Your task to perform on an android device: check google app version Image 0: 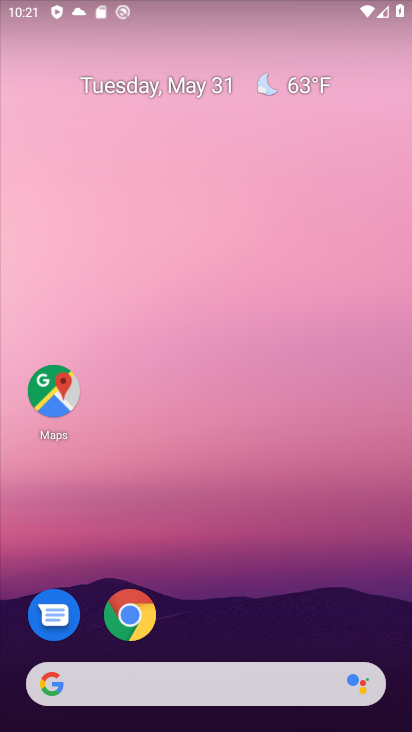
Step 0: drag from (358, 536) to (301, 152)
Your task to perform on an android device: check google app version Image 1: 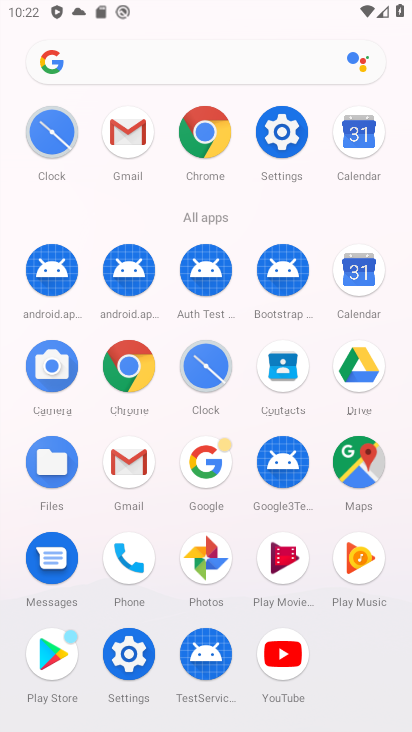
Step 1: click (207, 477)
Your task to perform on an android device: check google app version Image 2: 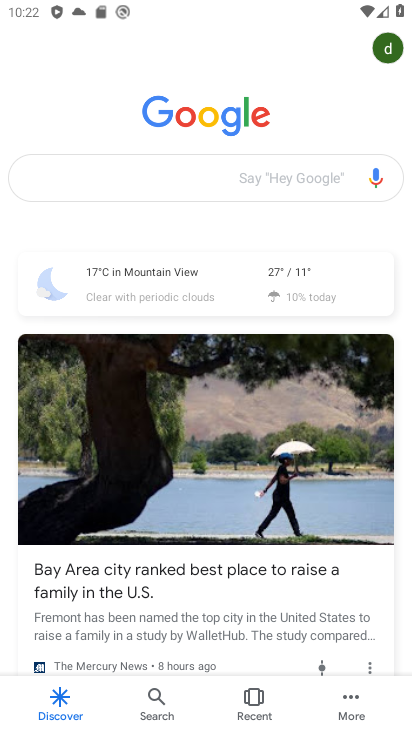
Step 2: click (355, 701)
Your task to perform on an android device: check google app version Image 3: 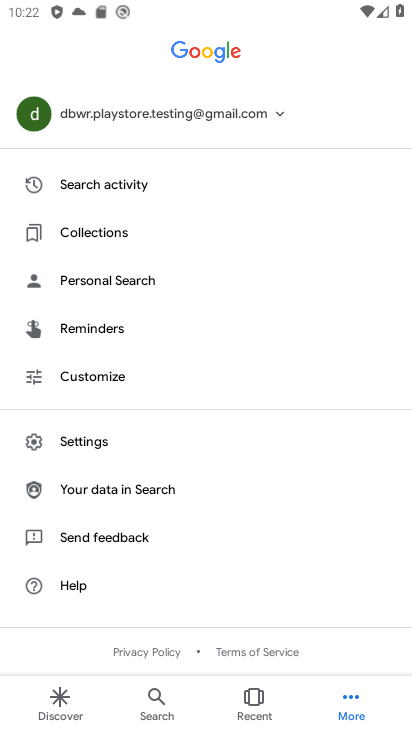
Step 3: click (135, 441)
Your task to perform on an android device: check google app version Image 4: 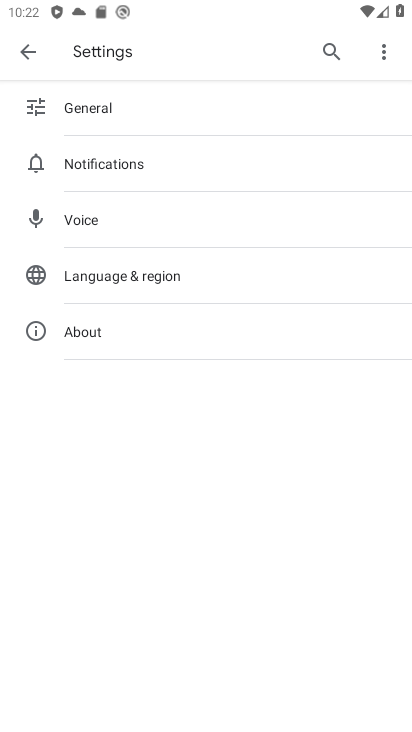
Step 4: click (97, 331)
Your task to perform on an android device: check google app version Image 5: 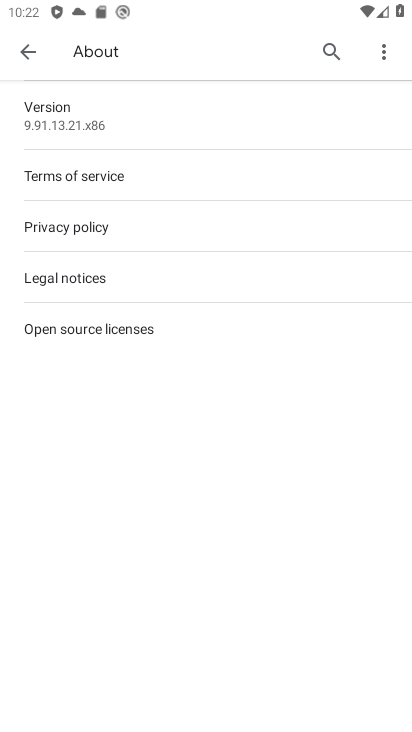
Step 5: task complete